Your task to perform on an android device: Clear the shopping cart on newegg. Image 0: 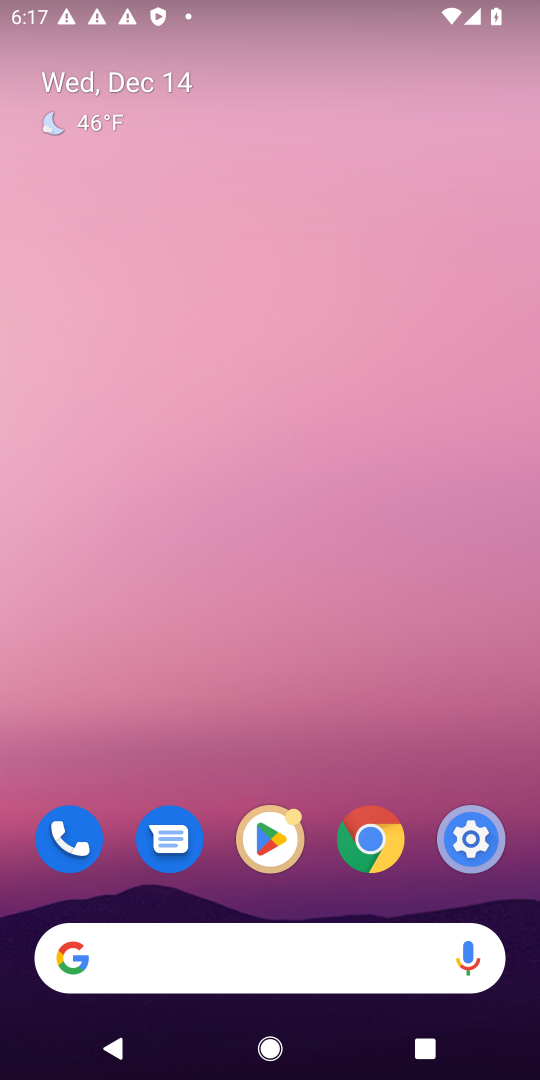
Step 0: click (377, 868)
Your task to perform on an android device: Clear the shopping cart on newegg. Image 1: 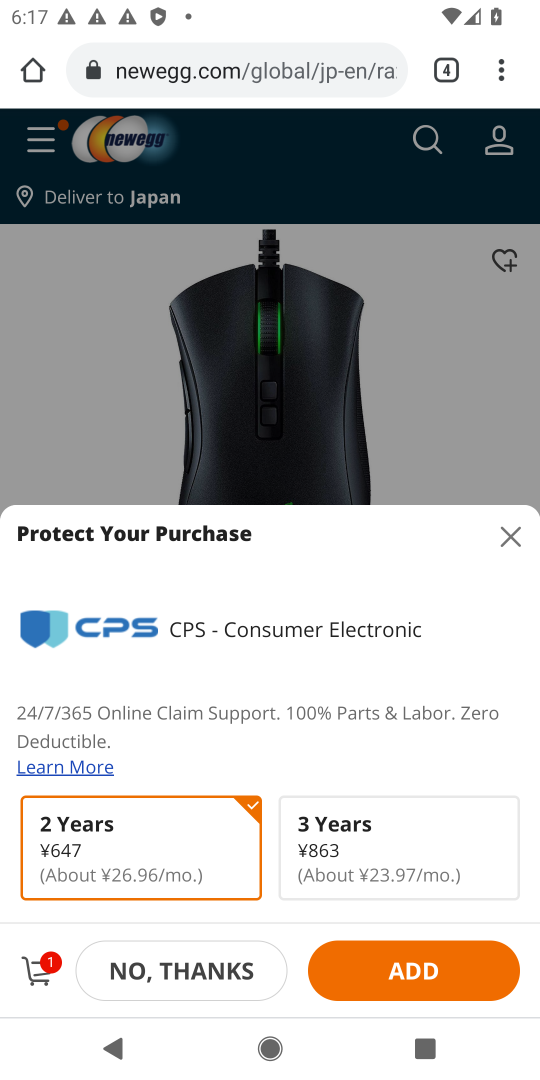
Step 1: click (430, 992)
Your task to perform on an android device: Clear the shopping cart on newegg. Image 2: 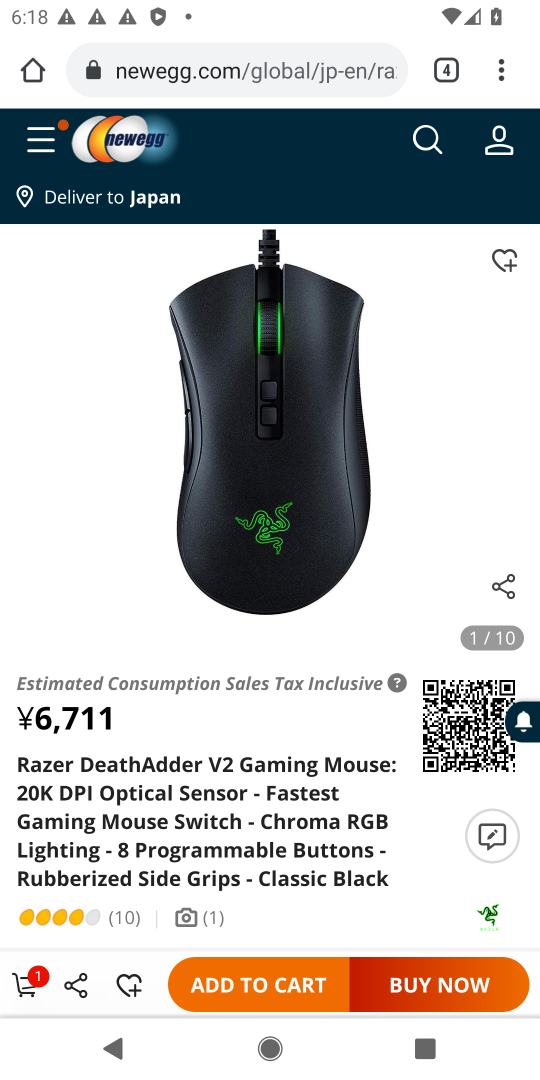
Step 2: click (282, 976)
Your task to perform on an android device: Clear the shopping cart on newegg. Image 3: 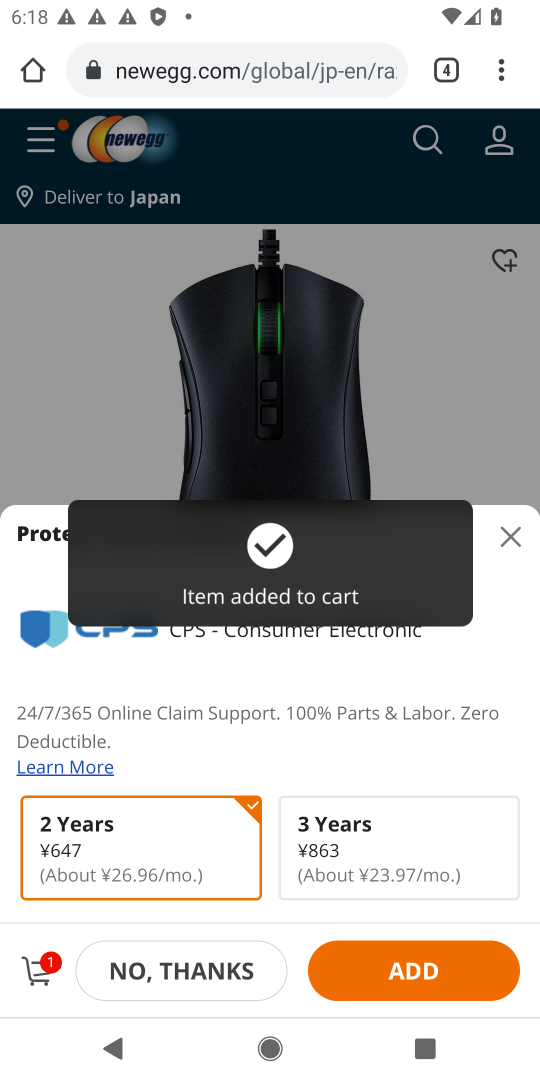
Step 3: task complete